Your task to perform on an android device: Open Android settings Image 0: 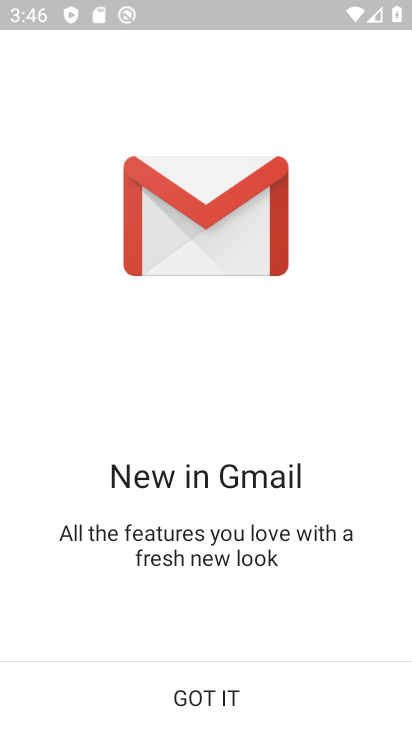
Step 0: click (271, 695)
Your task to perform on an android device: Open Android settings Image 1: 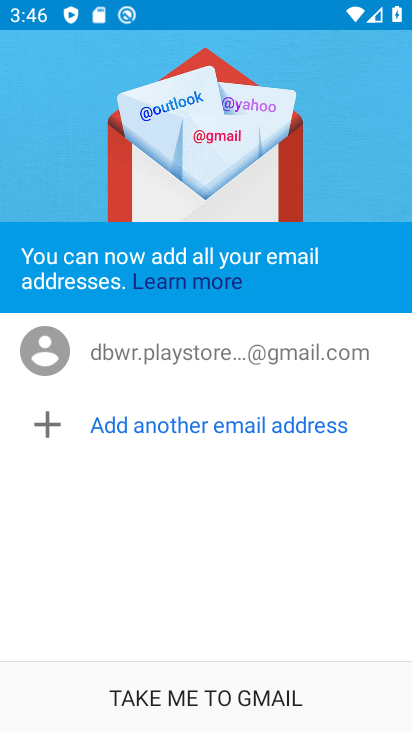
Step 1: press home button
Your task to perform on an android device: Open Android settings Image 2: 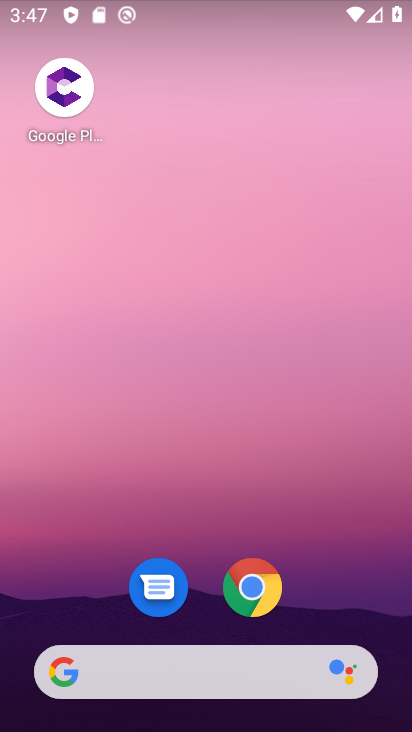
Step 2: drag from (357, 533) to (337, 76)
Your task to perform on an android device: Open Android settings Image 3: 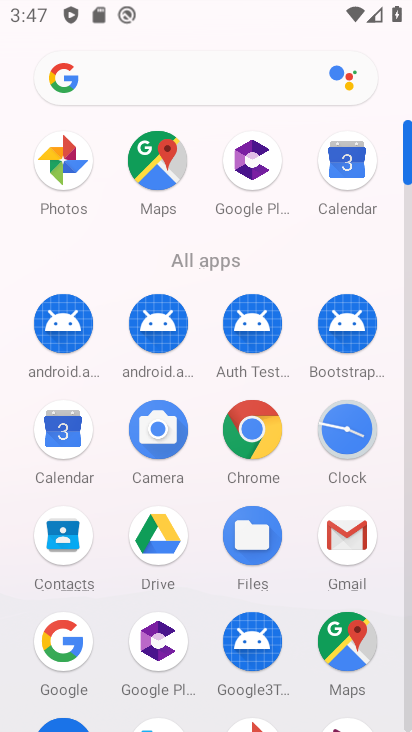
Step 3: drag from (213, 288) to (228, 9)
Your task to perform on an android device: Open Android settings Image 4: 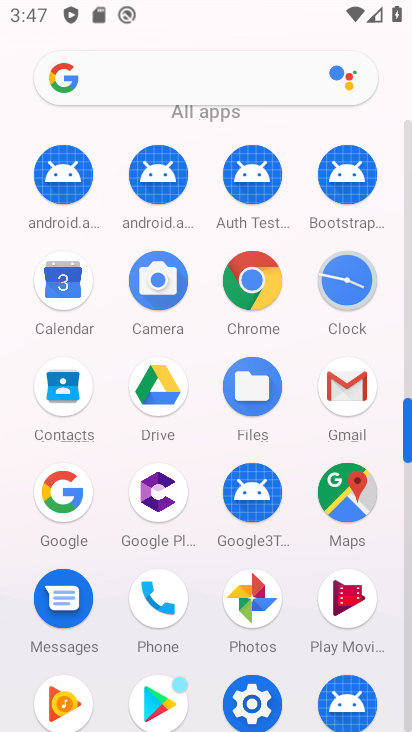
Step 4: click (240, 703)
Your task to perform on an android device: Open Android settings Image 5: 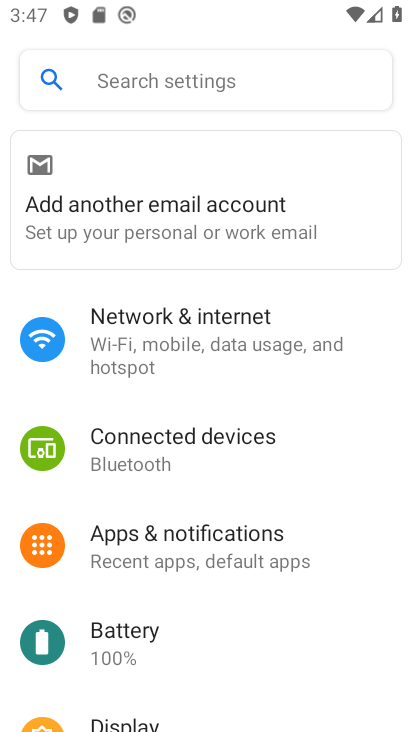
Step 5: task complete